Your task to perform on an android device: Open display settings Image 0: 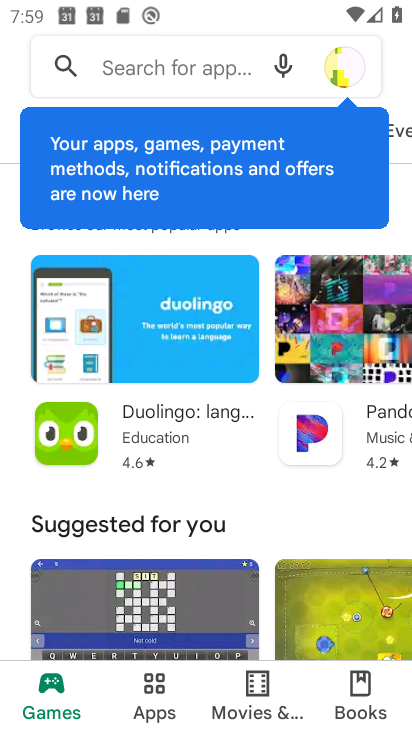
Step 0: press home button
Your task to perform on an android device: Open display settings Image 1: 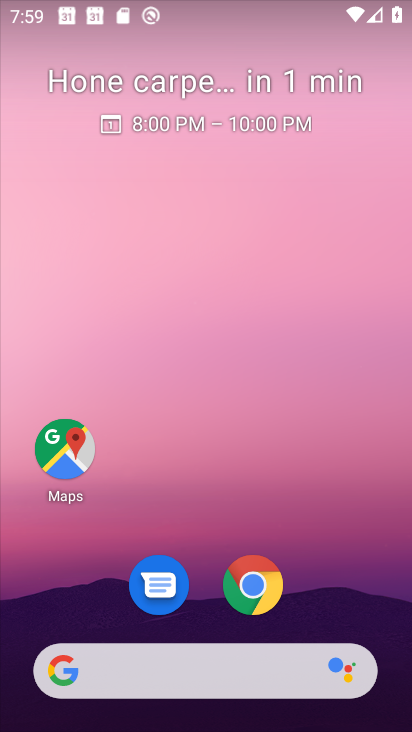
Step 1: drag from (310, 595) to (322, 165)
Your task to perform on an android device: Open display settings Image 2: 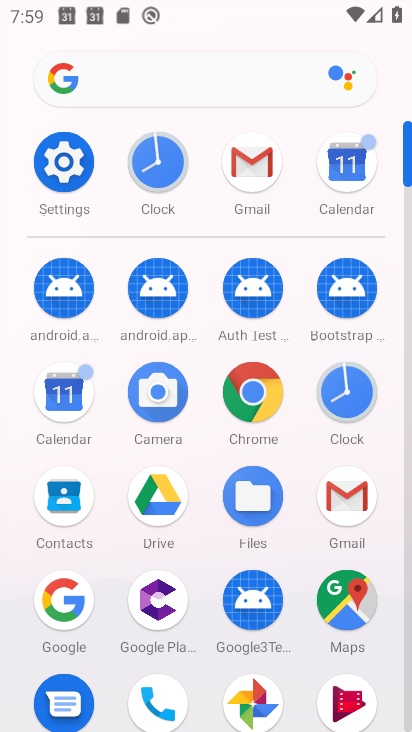
Step 2: click (54, 161)
Your task to perform on an android device: Open display settings Image 3: 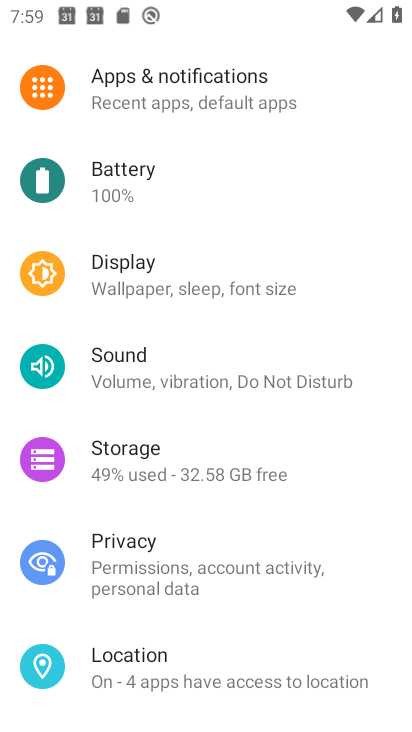
Step 3: click (132, 274)
Your task to perform on an android device: Open display settings Image 4: 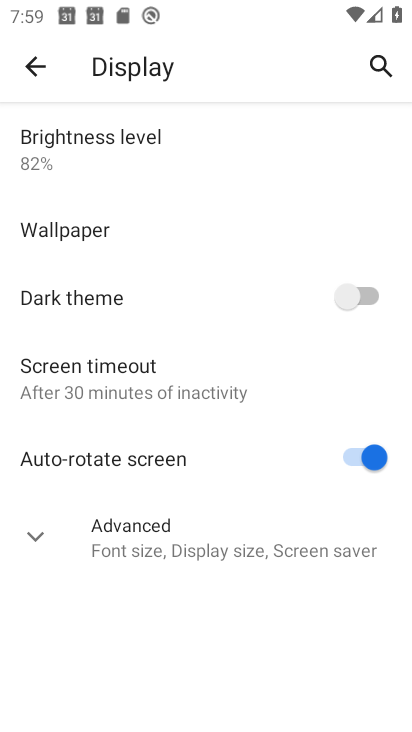
Step 4: task complete